Your task to perform on an android device: change the clock display to digital Image 0: 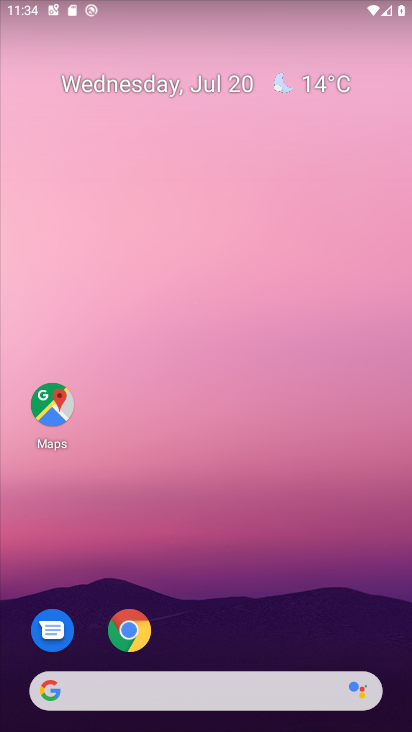
Step 0: drag from (210, 665) to (145, 262)
Your task to perform on an android device: change the clock display to digital Image 1: 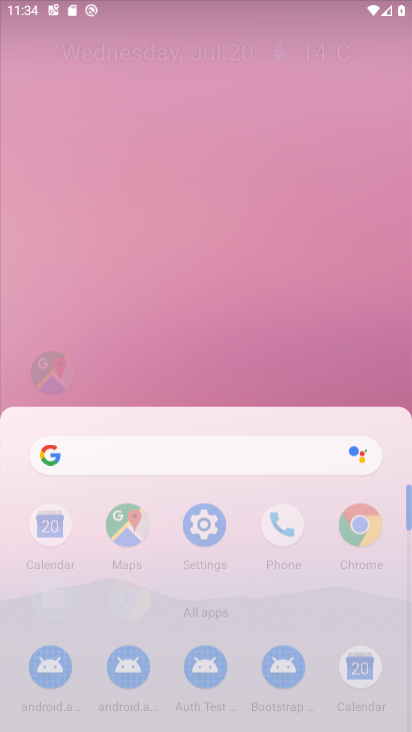
Step 1: click (145, 262)
Your task to perform on an android device: change the clock display to digital Image 2: 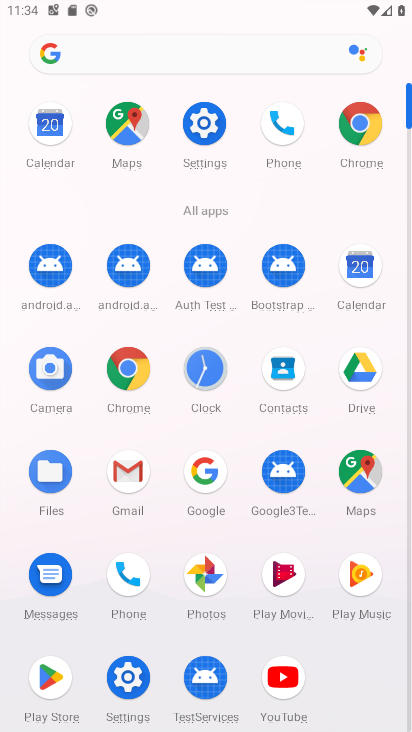
Step 2: click (216, 369)
Your task to perform on an android device: change the clock display to digital Image 3: 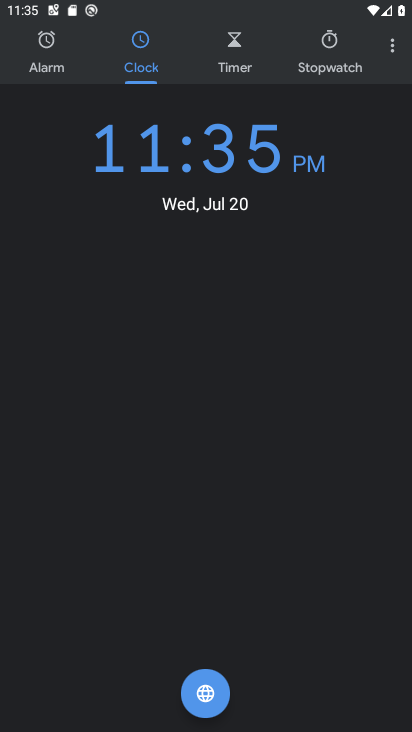
Step 3: click (384, 45)
Your task to perform on an android device: change the clock display to digital Image 4: 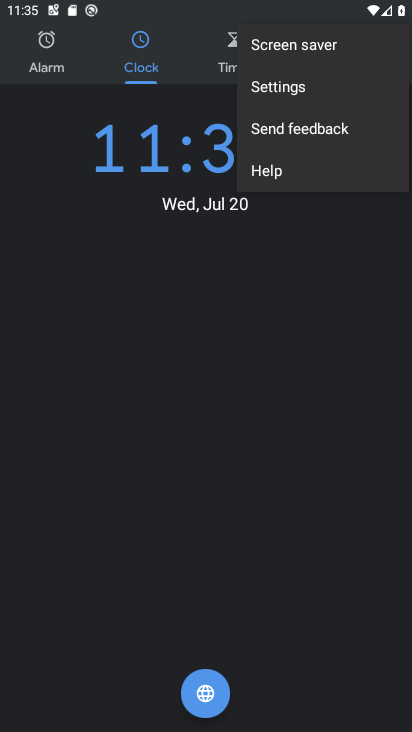
Step 4: click (306, 79)
Your task to perform on an android device: change the clock display to digital Image 5: 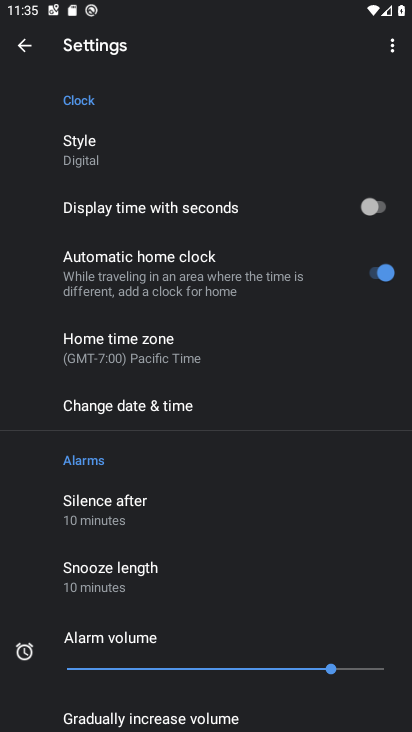
Step 5: click (111, 161)
Your task to perform on an android device: change the clock display to digital Image 6: 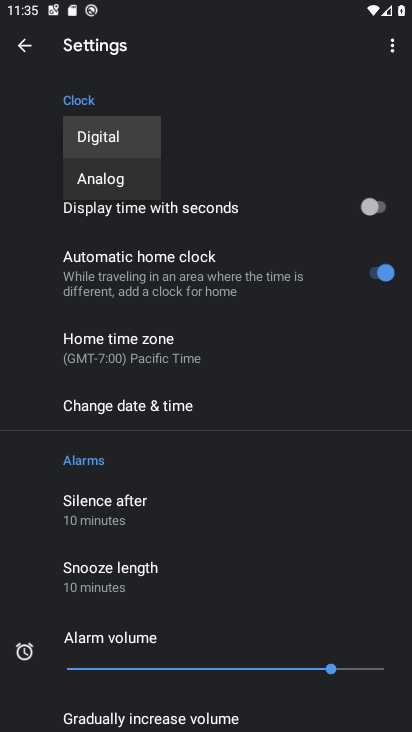
Step 6: click (103, 144)
Your task to perform on an android device: change the clock display to digital Image 7: 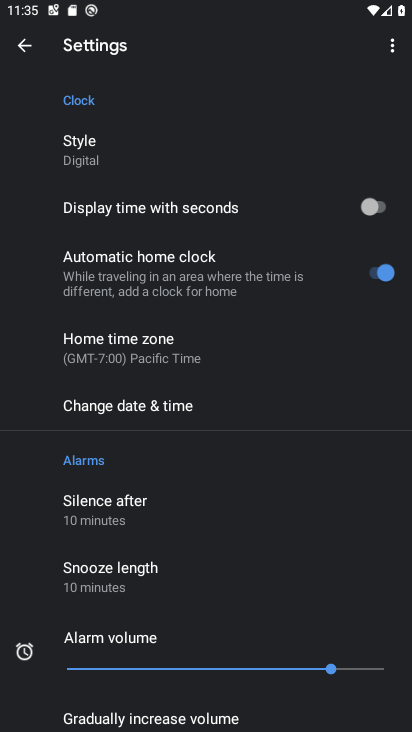
Step 7: task complete